Your task to perform on an android device: What's the weather going to be this weekend? Image 0: 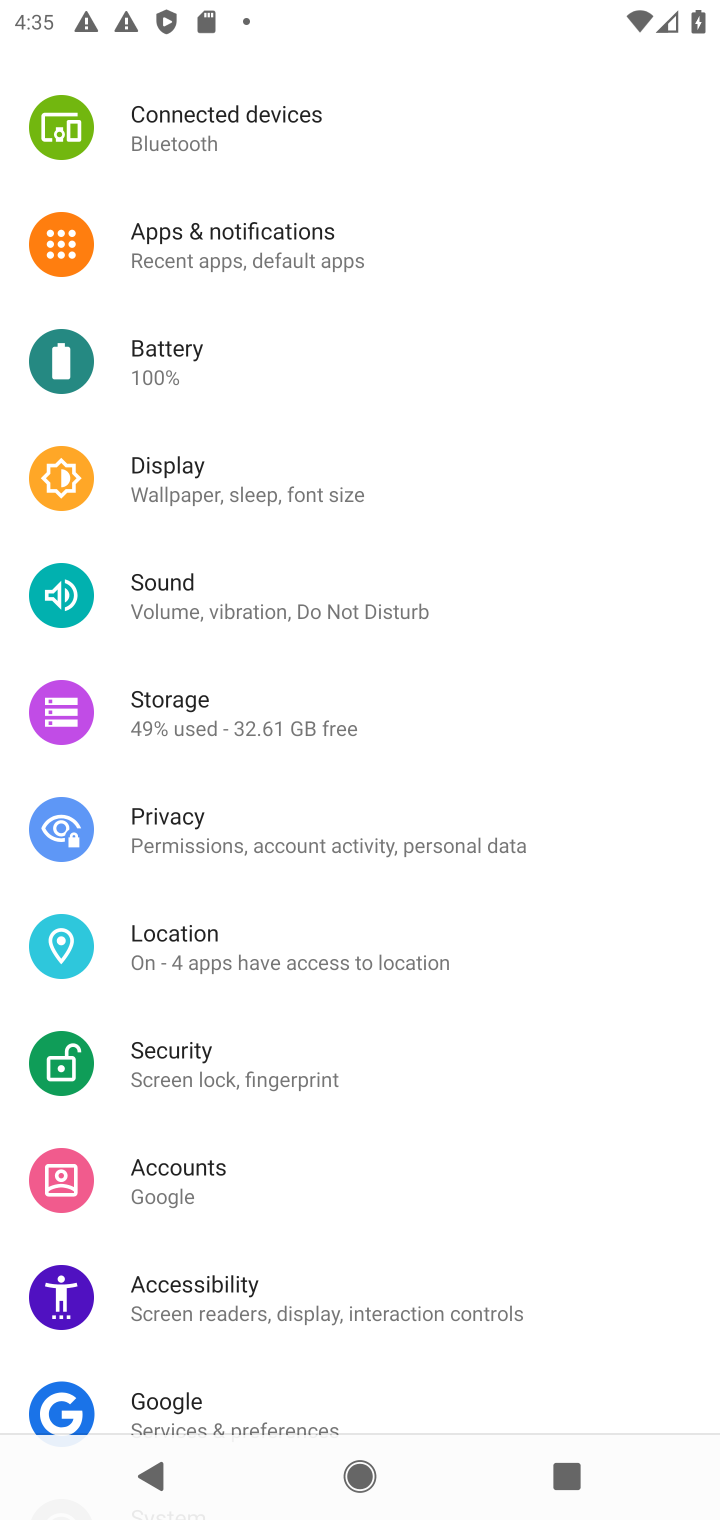
Step 0: press home button
Your task to perform on an android device: What's the weather going to be this weekend? Image 1: 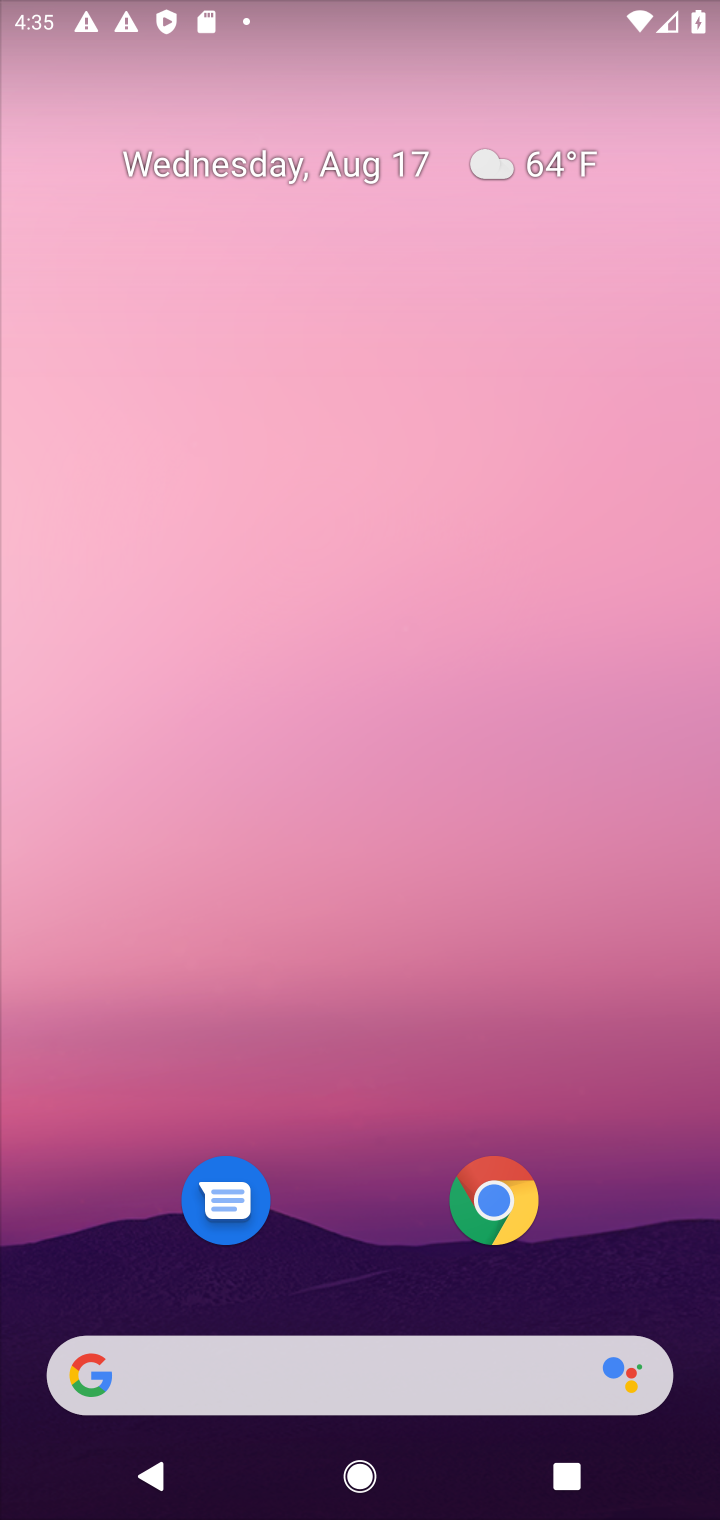
Step 1: drag from (355, 1124) to (302, 107)
Your task to perform on an android device: What's the weather going to be this weekend? Image 2: 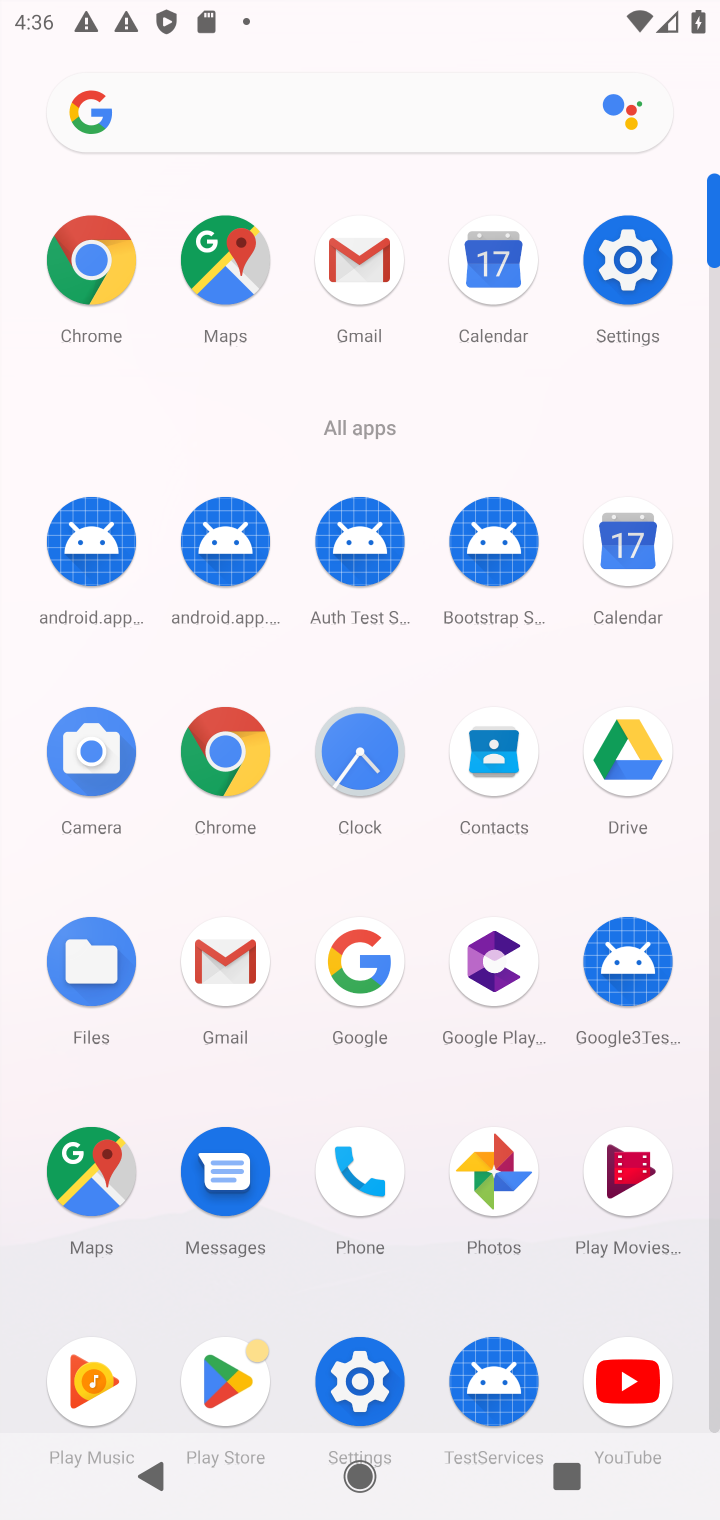
Step 2: click (356, 958)
Your task to perform on an android device: What's the weather going to be this weekend? Image 3: 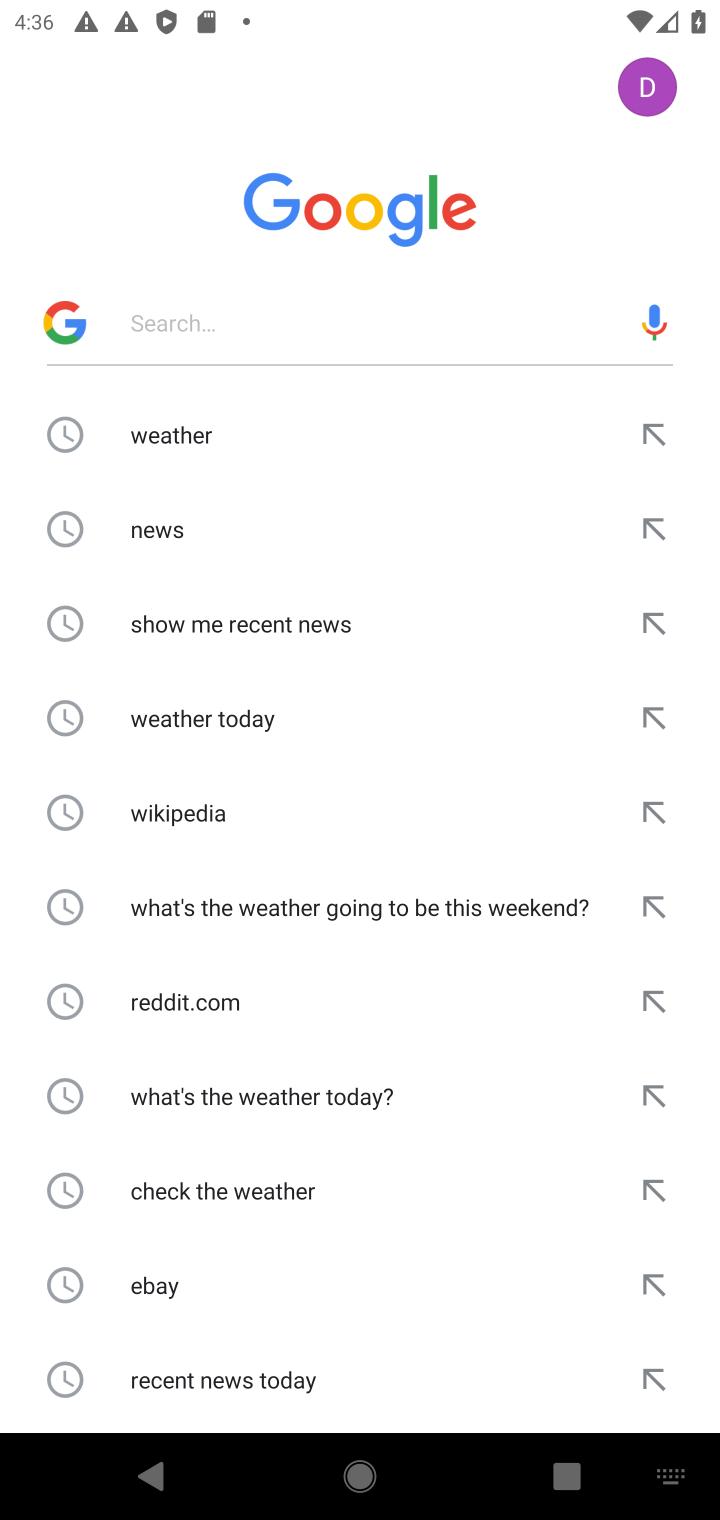
Step 3: click (156, 431)
Your task to perform on an android device: What's the weather going to be this weekend? Image 4: 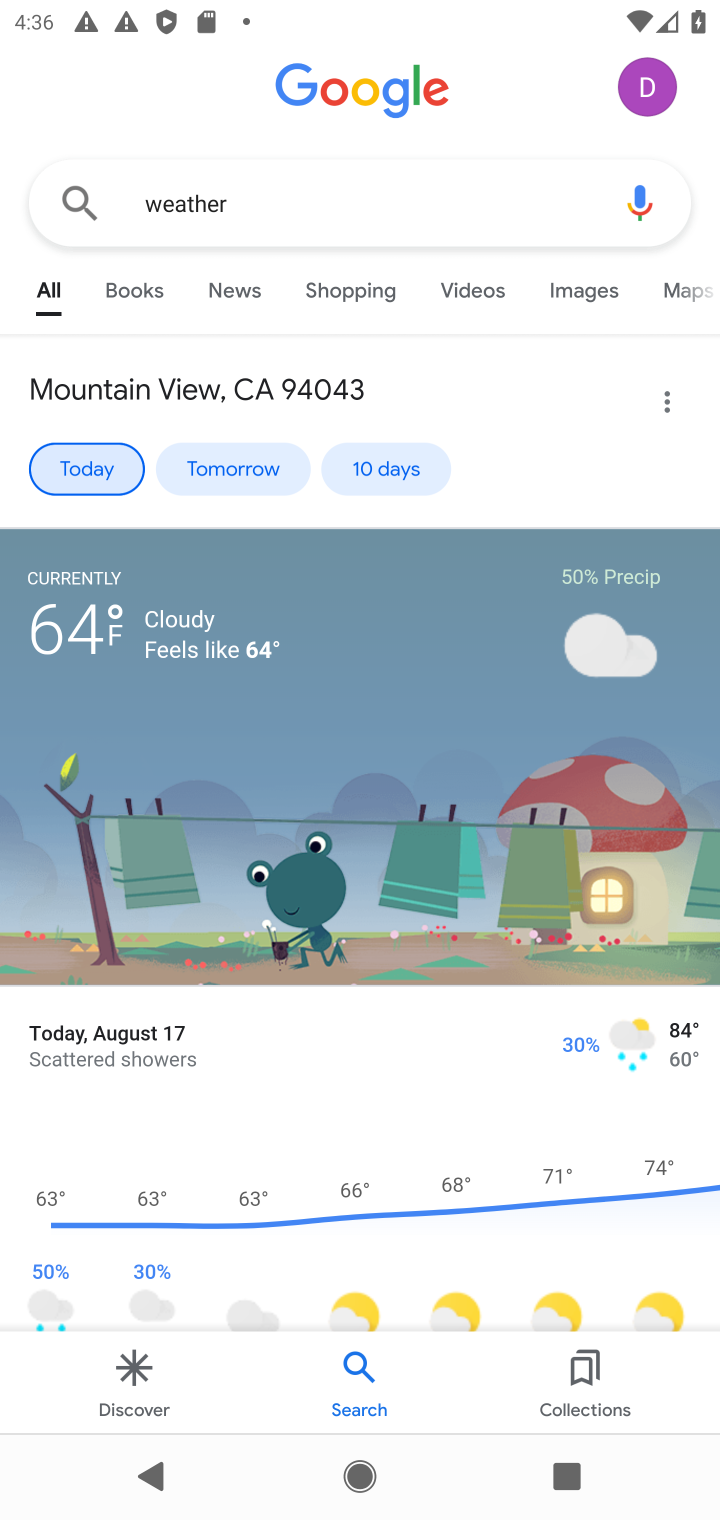
Step 4: click (354, 461)
Your task to perform on an android device: What's the weather going to be this weekend? Image 5: 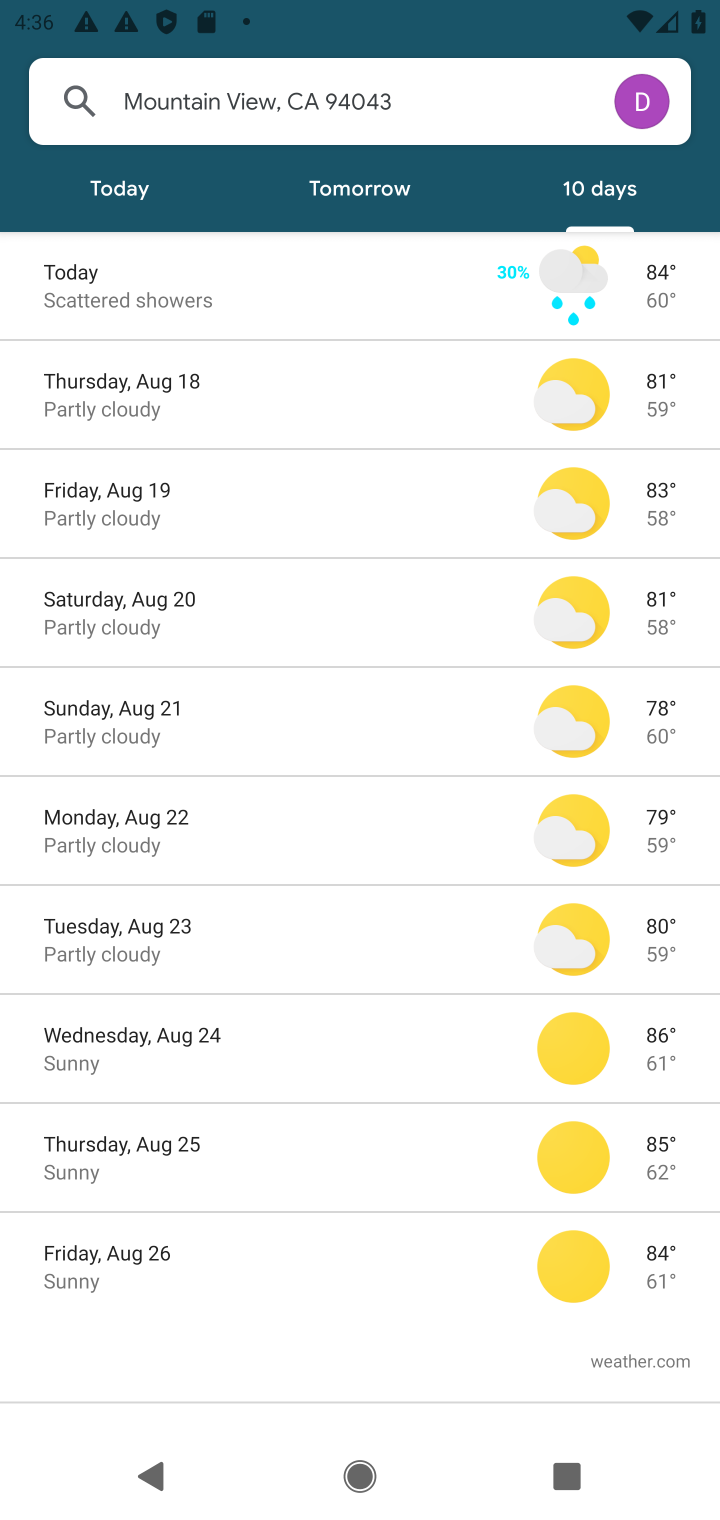
Step 5: click (76, 609)
Your task to perform on an android device: What's the weather going to be this weekend? Image 6: 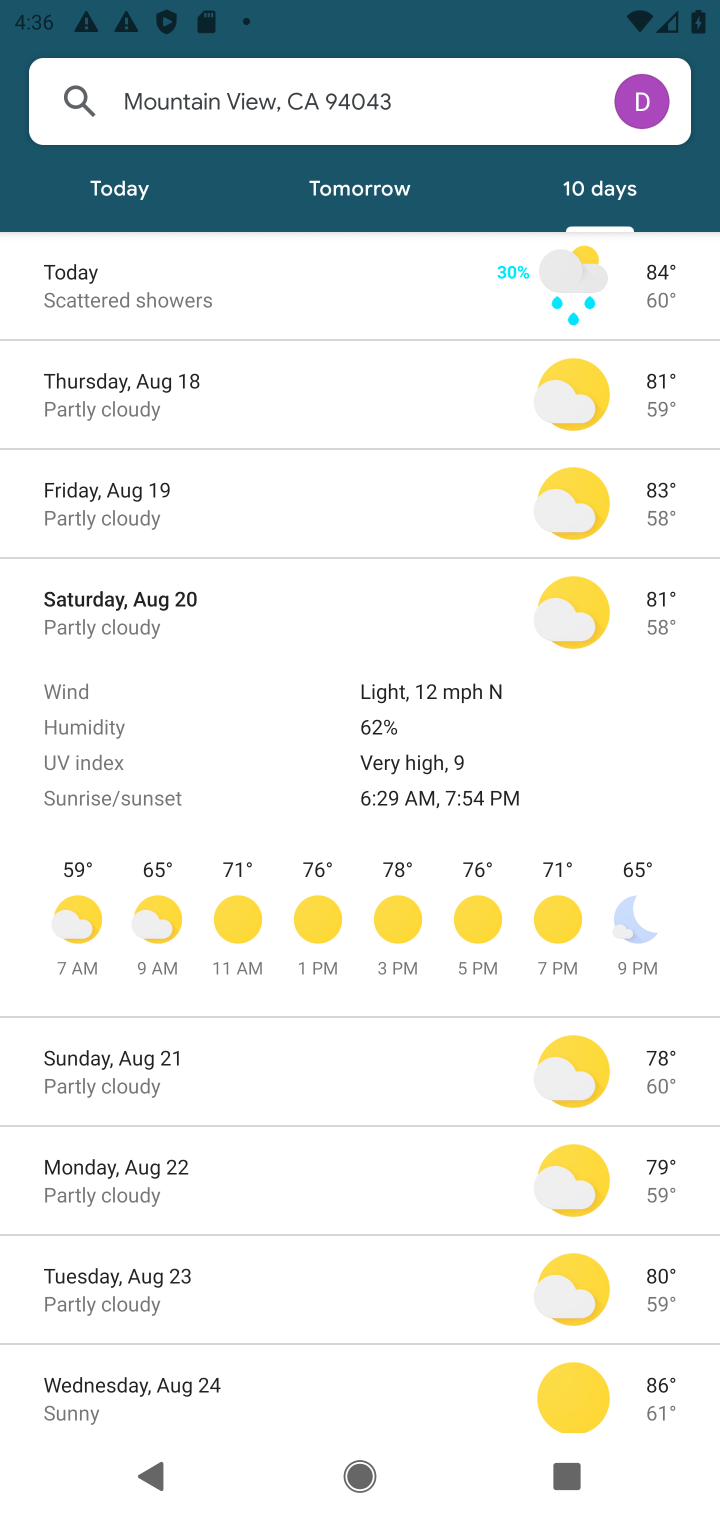
Step 6: task complete